Your task to perform on an android device: set the stopwatch Image 0: 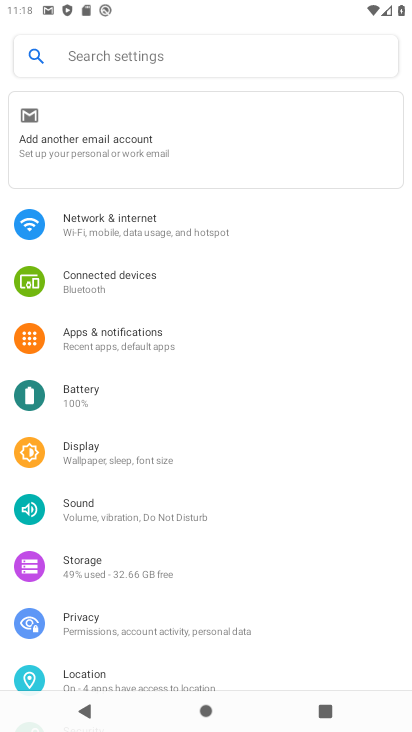
Step 0: press back button
Your task to perform on an android device: set the stopwatch Image 1: 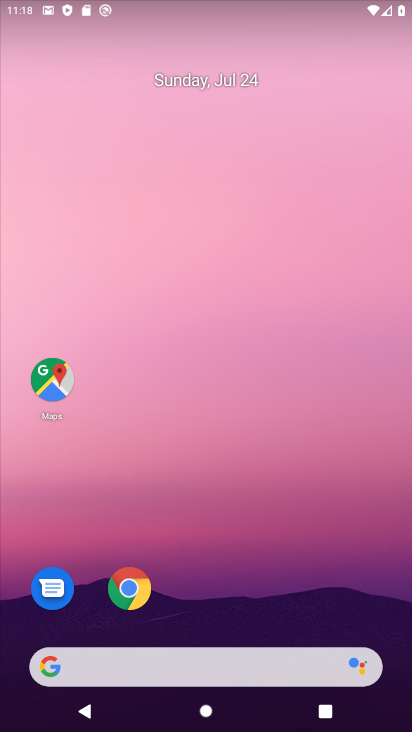
Step 1: drag from (280, 507) to (230, 150)
Your task to perform on an android device: set the stopwatch Image 2: 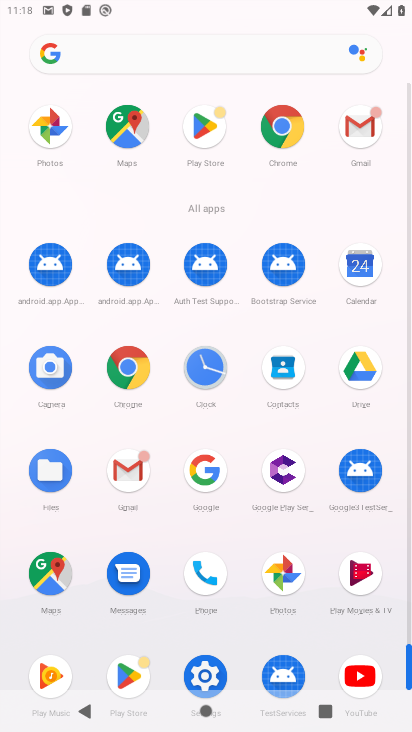
Step 2: drag from (211, 364) to (74, 182)
Your task to perform on an android device: set the stopwatch Image 3: 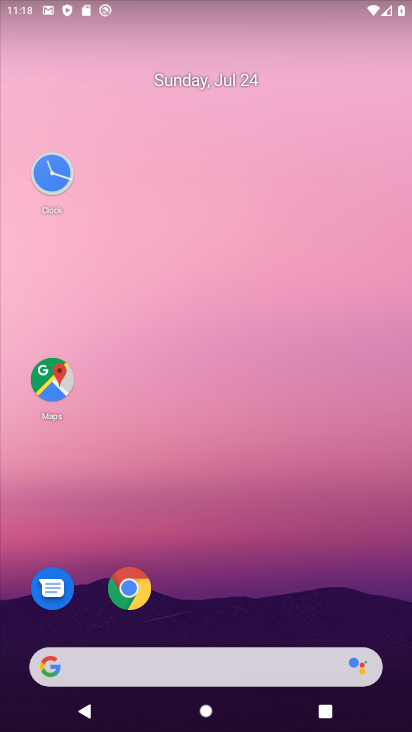
Step 3: click (55, 170)
Your task to perform on an android device: set the stopwatch Image 4: 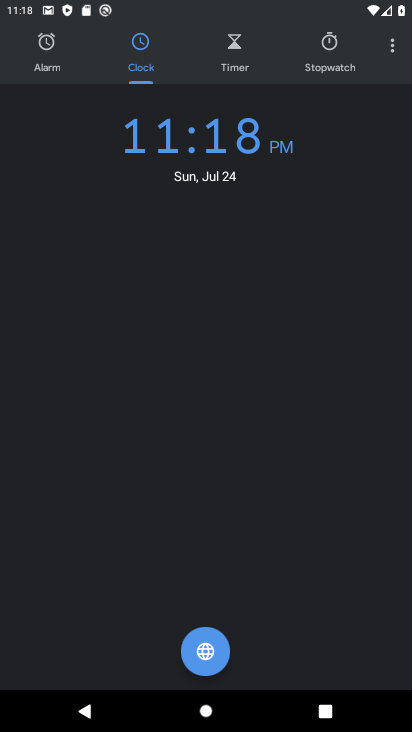
Step 4: click (315, 67)
Your task to perform on an android device: set the stopwatch Image 5: 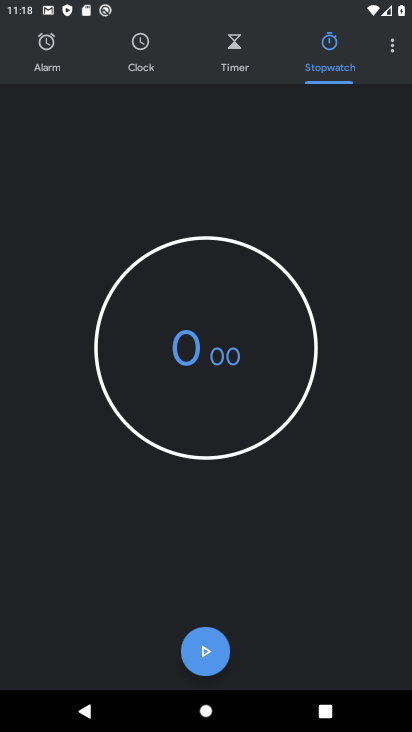
Step 5: click (234, 379)
Your task to perform on an android device: set the stopwatch Image 6: 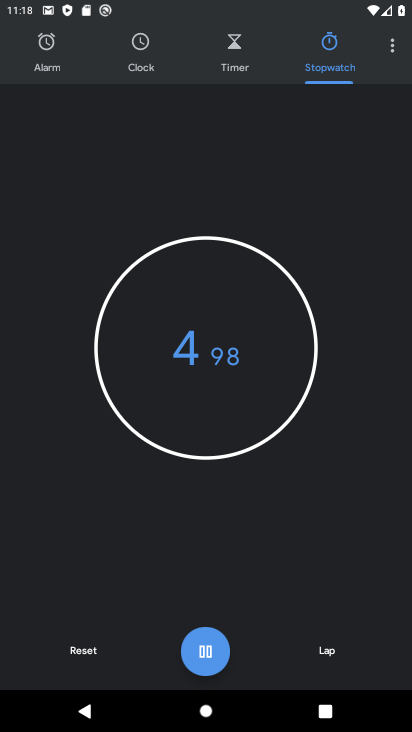
Step 6: task complete